Your task to perform on an android device: Play the new Justin Bieber video on YouTube Image 0: 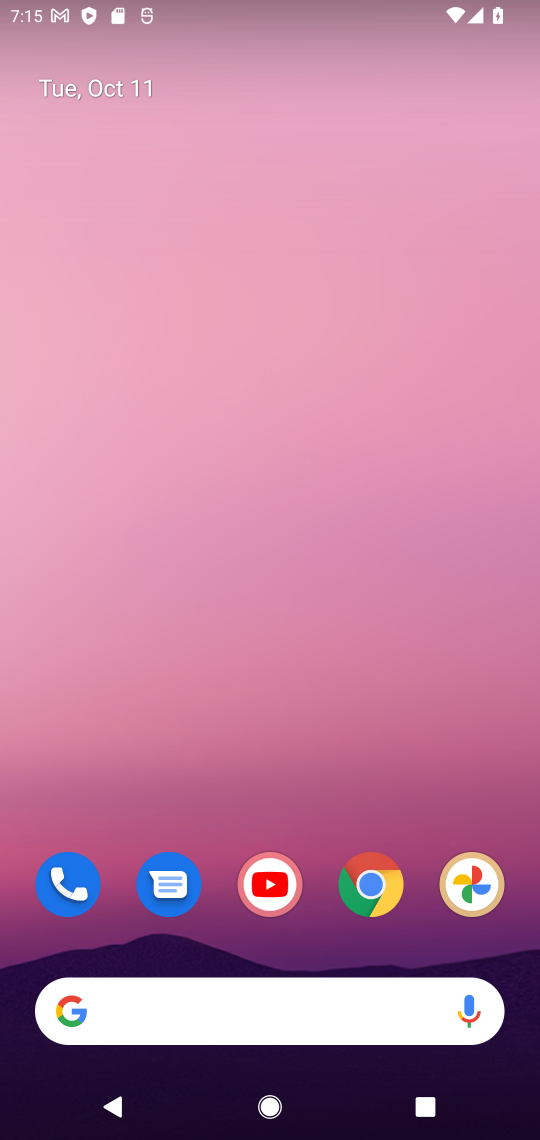
Step 0: click (294, 883)
Your task to perform on an android device: Play the new Justin Bieber video on YouTube Image 1: 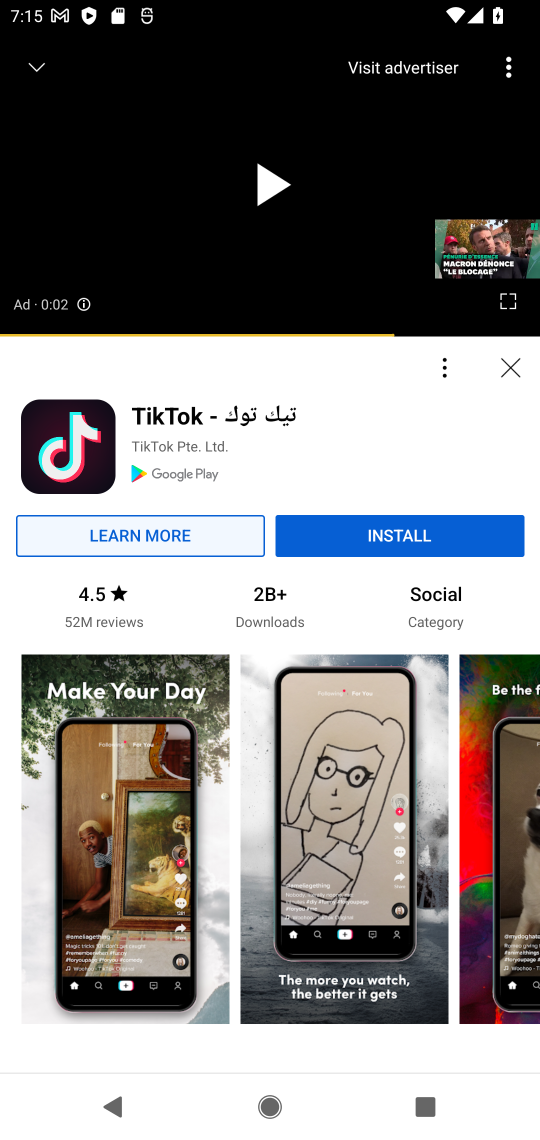
Step 1: drag from (230, 123) to (272, 903)
Your task to perform on an android device: Play the new Justin Bieber video on YouTube Image 2: 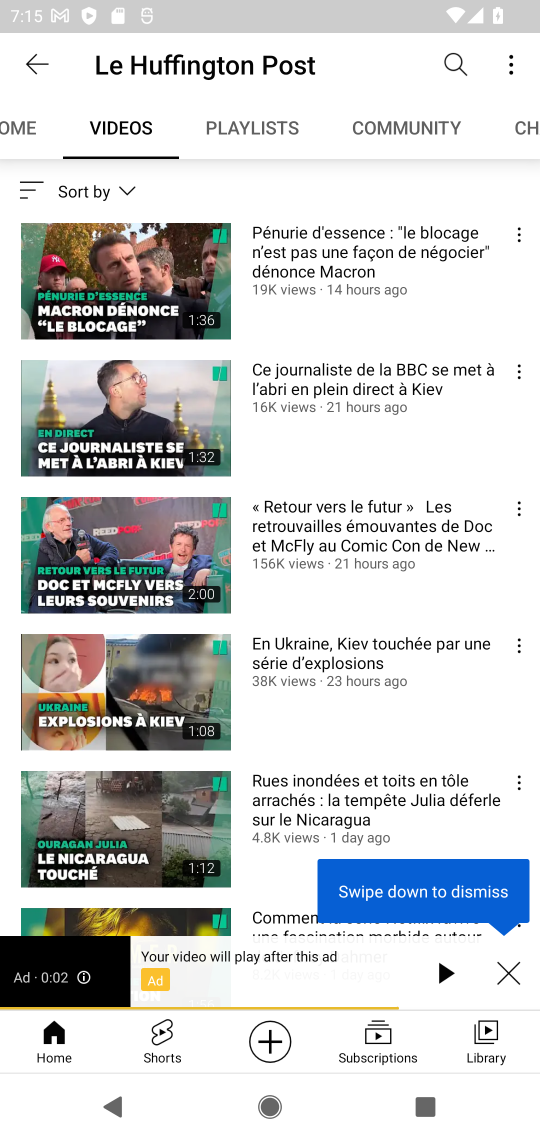
Step 2: click (509, 977)
Your task to perform on an android device: Play the new Justin Bieber video on YouTube Image 3: 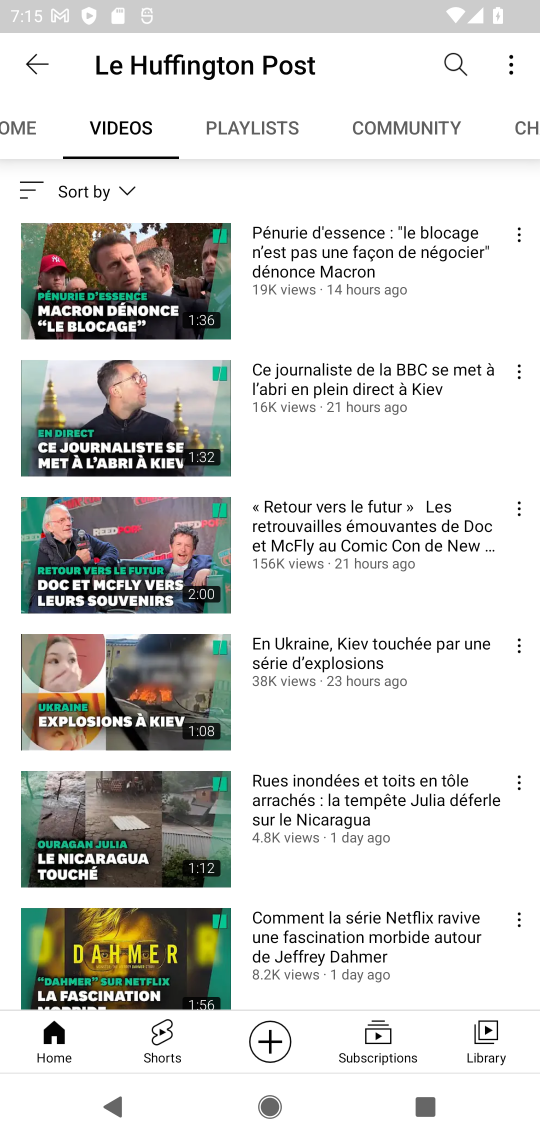
Step 3: click (457, 58)
Your task to perform on an android device: Play the new Justin Bieber video on YouTube Image 4: 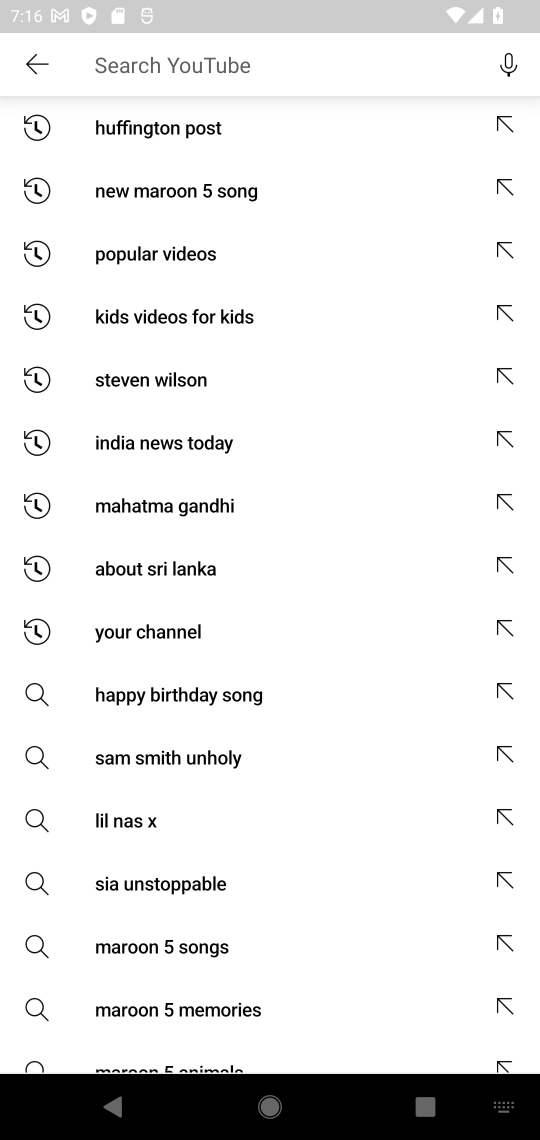
Step 4: type "Justin Bieber"
Your task to perform on an android device: Play the new Justin Bieber video on YouTube Image 5: 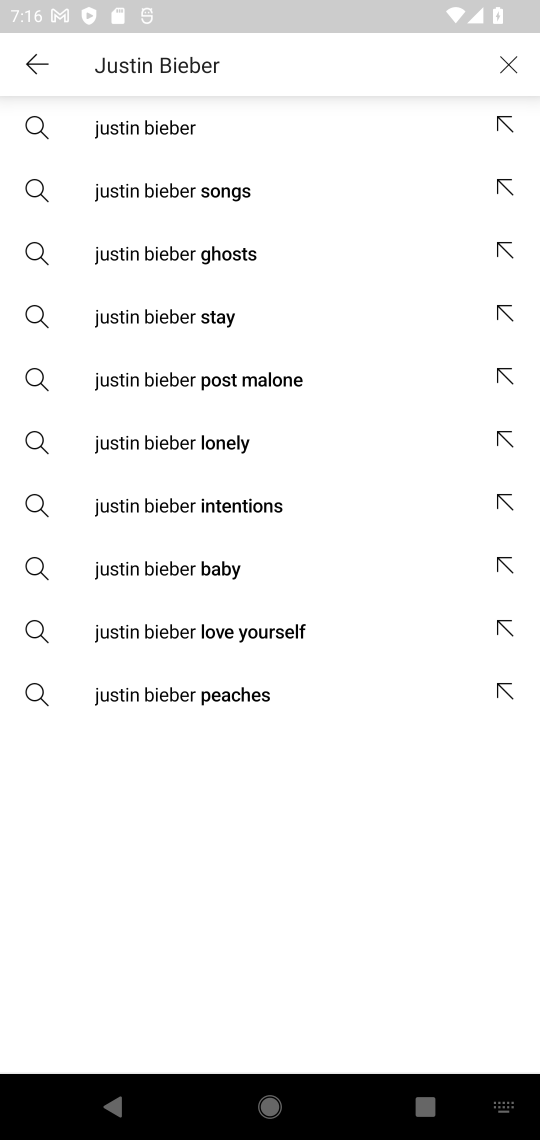
Step 5: click (179, 117)
Your task to perform on an android device: Play the new Justin Bieber video on YouTube Image 6: 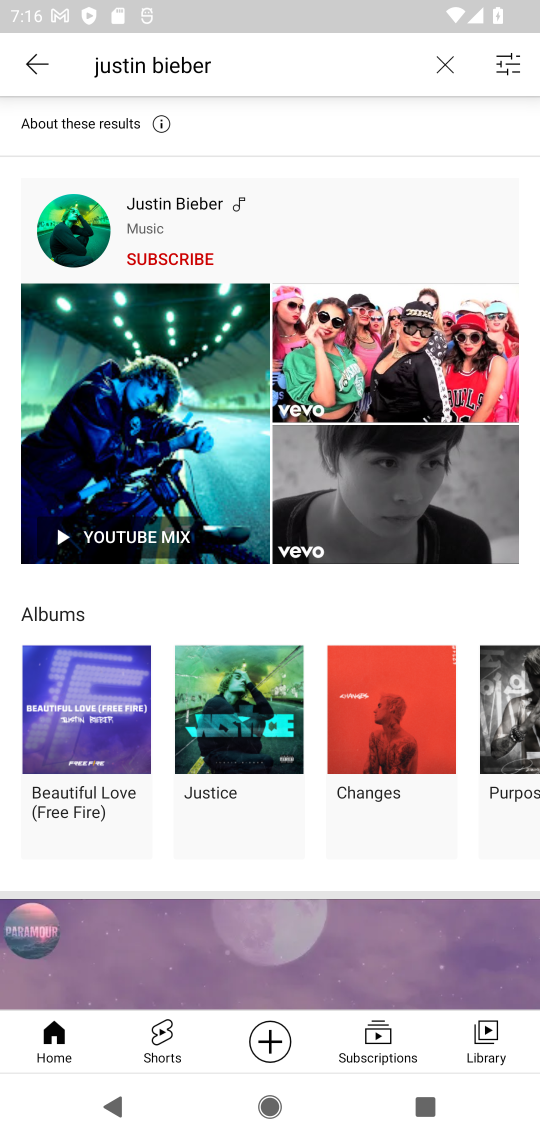
Step 6: click (179, 229)
Your task to perform on an android device: Play the new Justin Bieber video on YouTube Image 7: 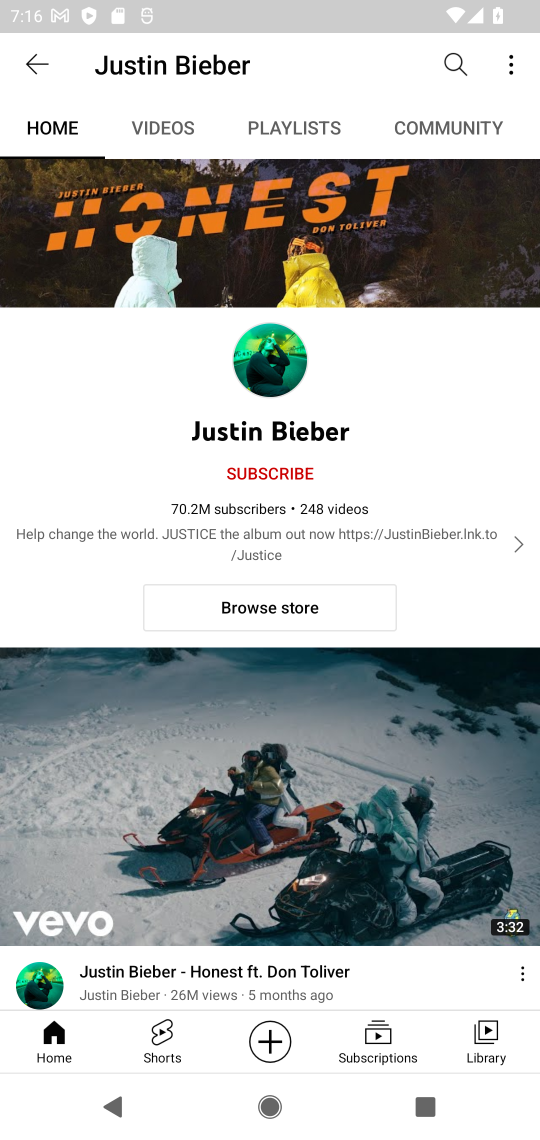
Step 7: click (152, 141)
Your task to perform on an android device: Play the new Justin Bieber video on YouTube Image 8: 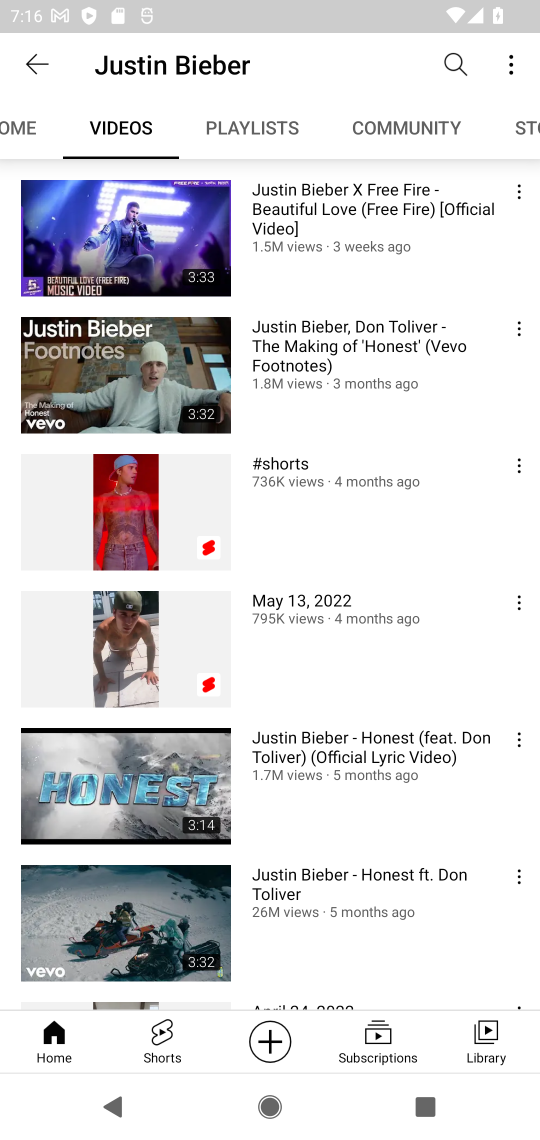
Step 8: click (310, 219)
Your task to perform on an android device: Play the new Justin Bieber video on YouTube Image 9: 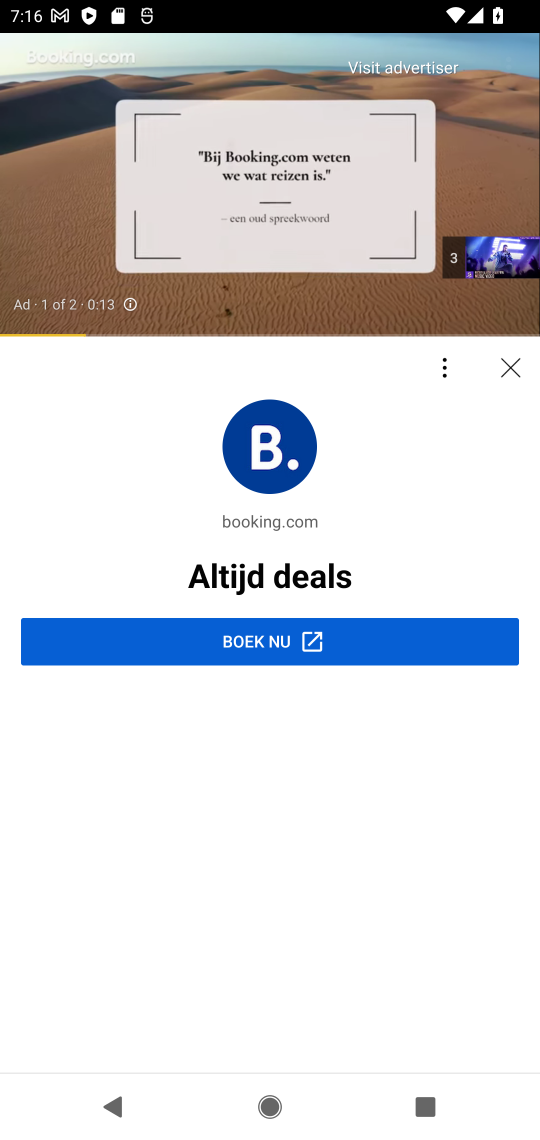
Step 9: task complete